Your task to perform on an android device: turn on wifi Image 0: 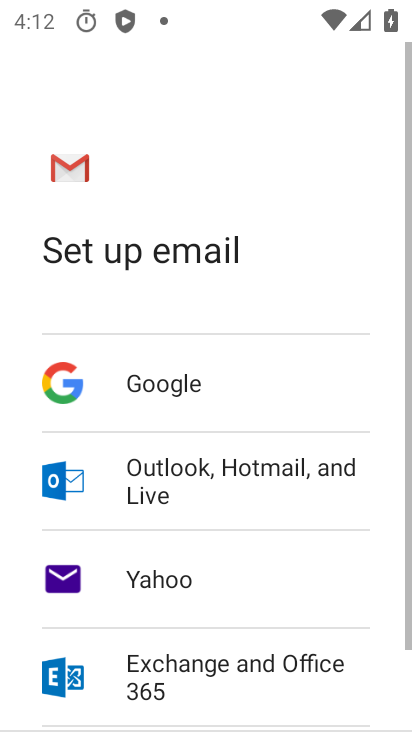
Step 0: press home button
Your task to perform on an android device: turn on wifi Image 1: 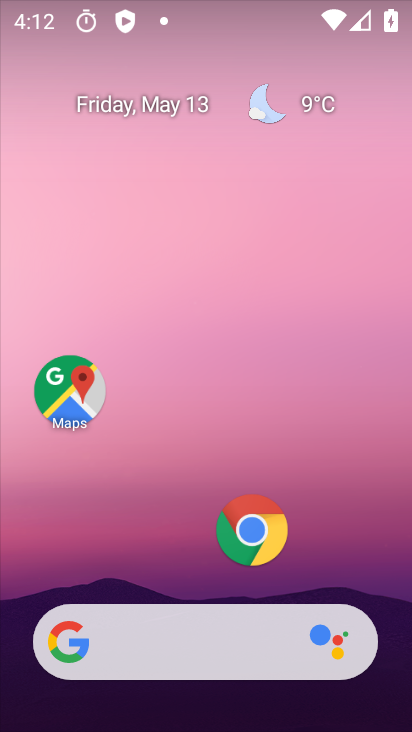
Step 1: drag from (191, 583) to (247, 5)
Your task to perform on an android device: turn on wifi Image 2: 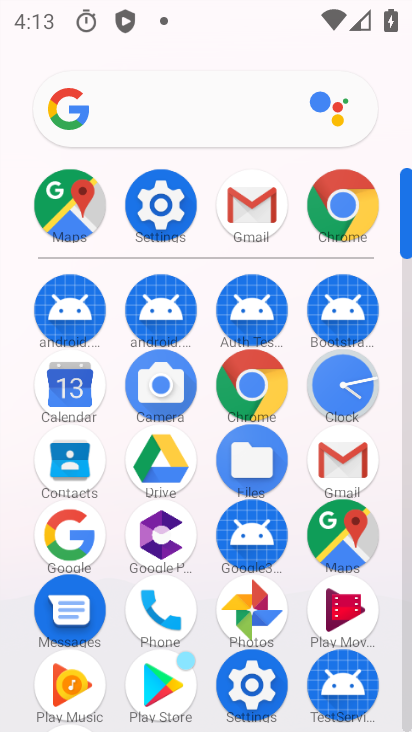
Step 2: click (165, 197)
Your task to perform on an android device: turn on wifi Image 3: 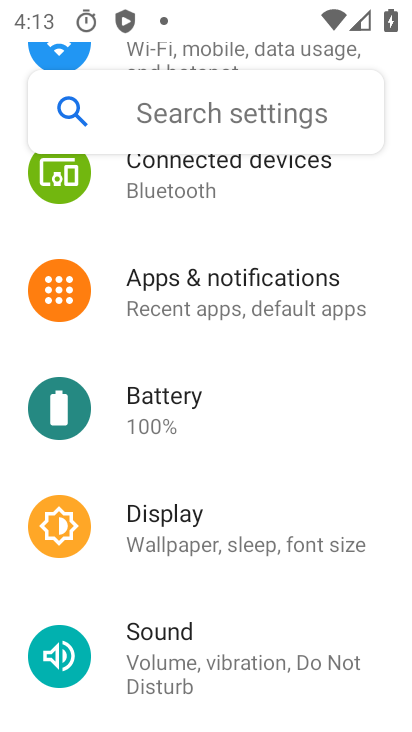
Step 3: drag from (199, 224) to (191, 728)
Your task to perform on an android device: turn on wifi Image 4: 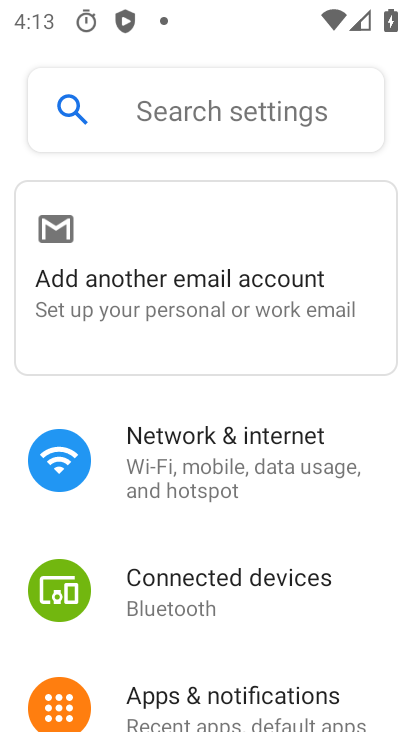
Step 4: click (118, 449)
Your task to perform on an android device: turn on wifi Image 5: 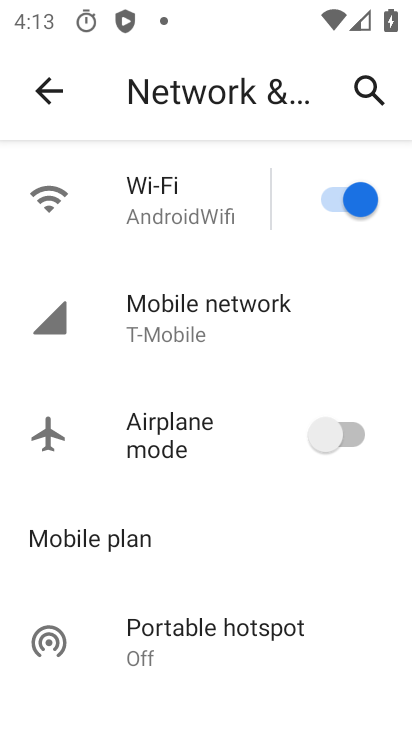
Step 5: click (229, 192)
Your task to perform on an android device: turn on wifi Image 6: 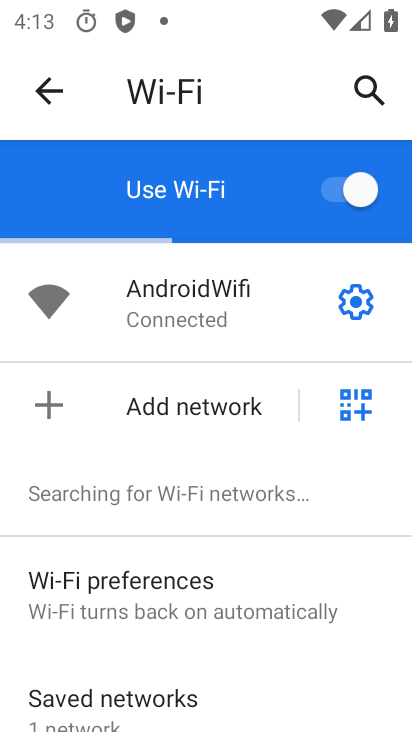
Step 6: task complete